Your task to perform on an android device: Open ESPN.com Image 0: 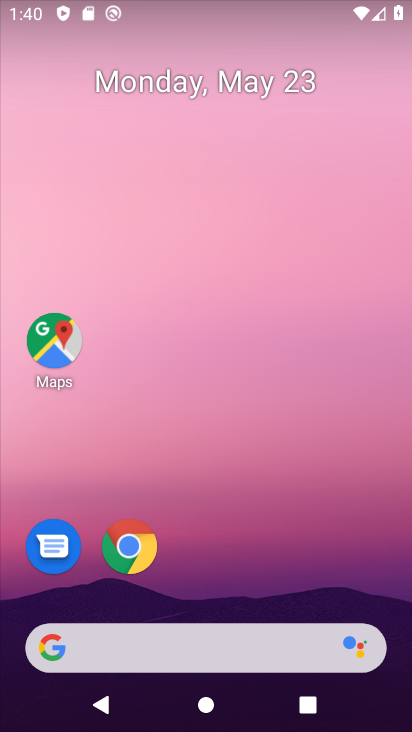
Step 0: click (132, 565)
Your task to perform on an android device: Open ESPN.com Image 1: 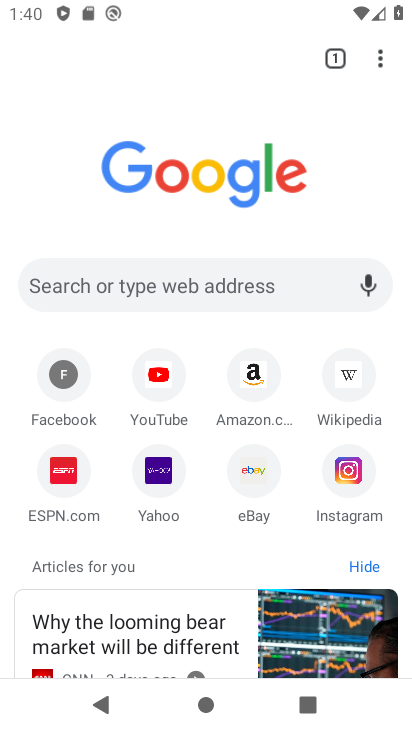
Step 1: click (76, 476)
Your task to perform on an android device: Open ESPN.com Image 2: 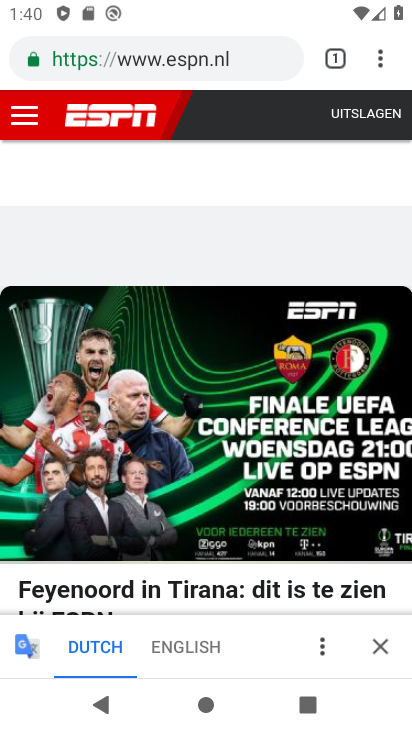
Step 2: task complete